Your task to perform on an android device: Is it going to rain this weekend? Image 0: 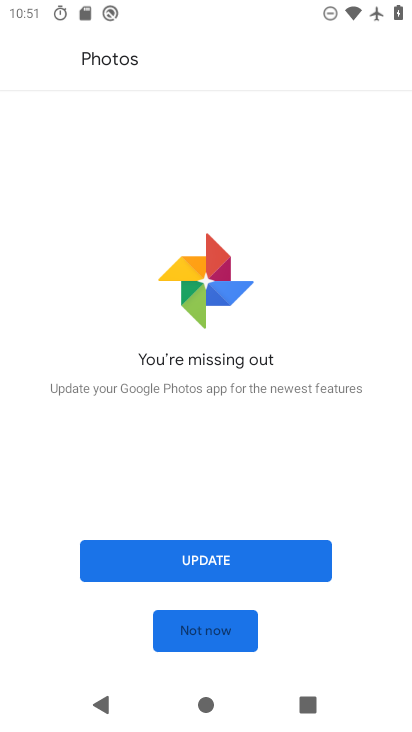
Step 0: press home button
Your task to perform on an android device: Is it going to rain this weekend? Image 1: 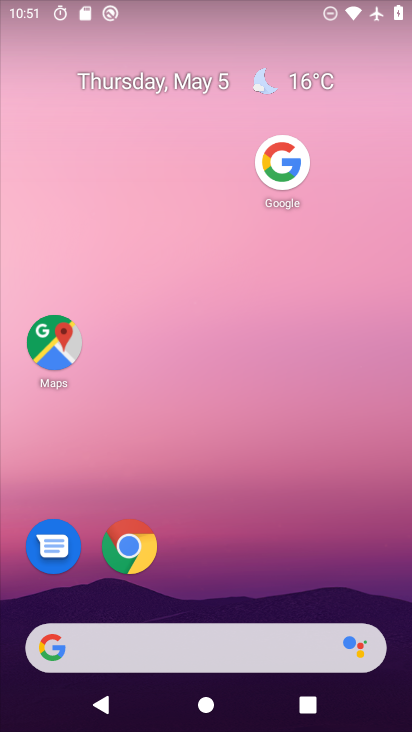
Step 1: click (302, 76)
Your task to perform on an android device: Is it going to rain this weekend? Image 2: 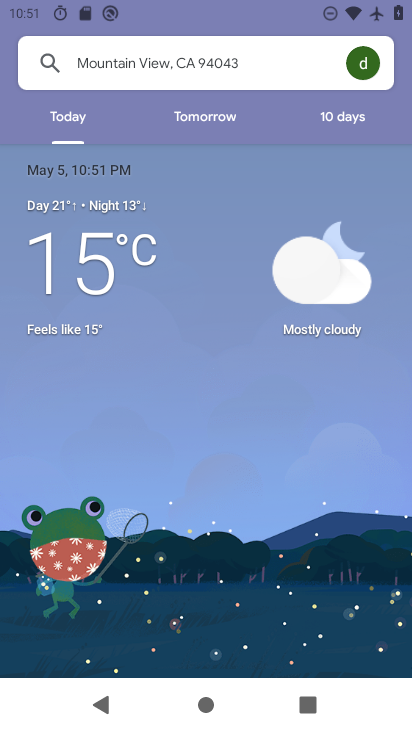
Step 2: click (344, 111)
Your task to perform on an android device: Is it going to rain this weekend? Image 3: 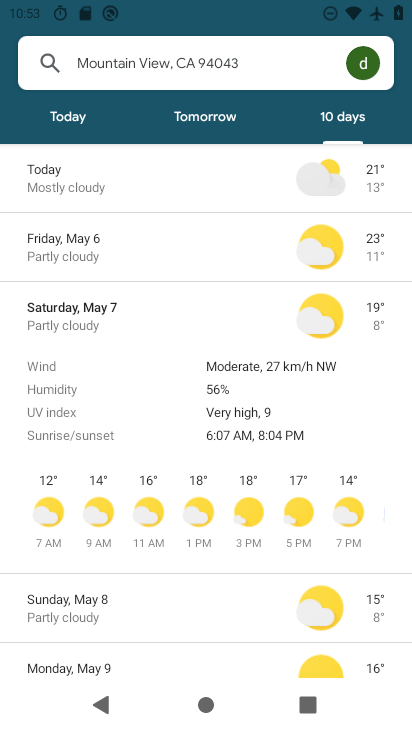
Step 3: task complete